Your task to perform on an android device: turn on bluetooth scan Image 0: 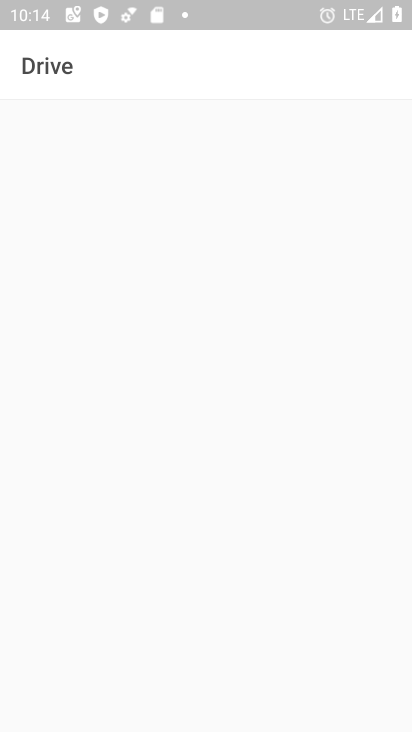
Step 0: press home button
Your task to perform on an android device: turn on bluetooth scan Image 1: 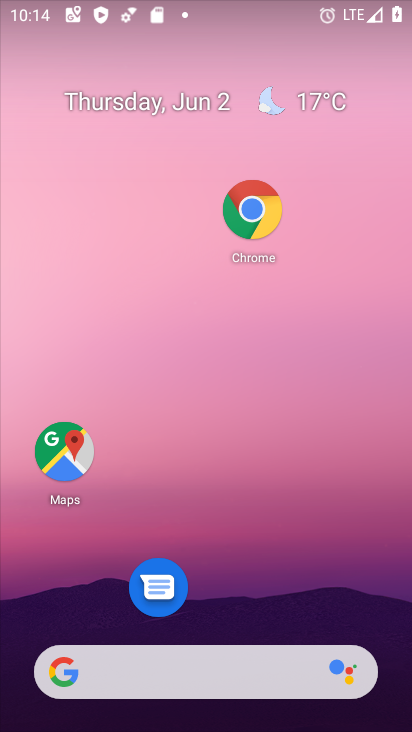
Step 1: drag from (210, 619) to (222, 40)
Your task to perform on an android device: turn on bluetooth scan Image 2: 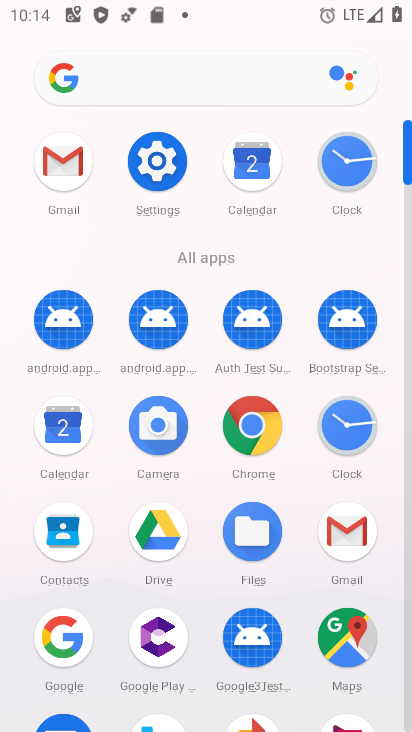
Step 2: click (155, 155)
Your task to perform on an android device: turn on bluetooth scan Image 3: 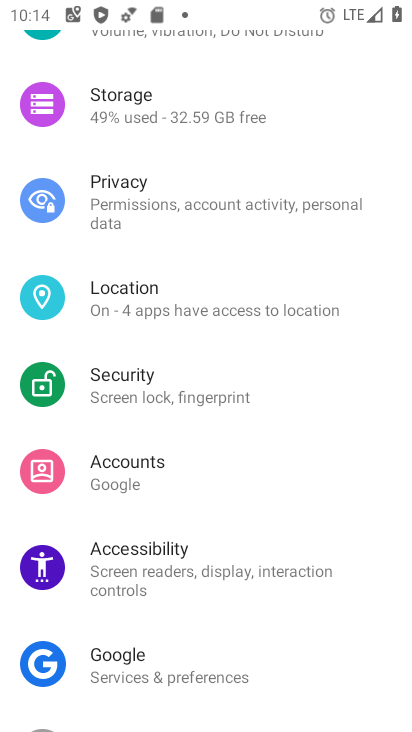
Step 3: click (169, 287)
Your task to perform on an android device: turn on bluetooth scan Image 4: 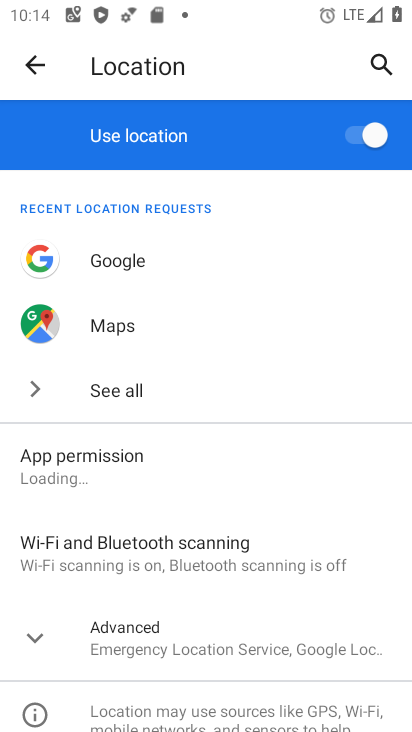
Step 4: click (209, 551)
Your task to perform on an android device: turn on bluetooth scan Image 5: 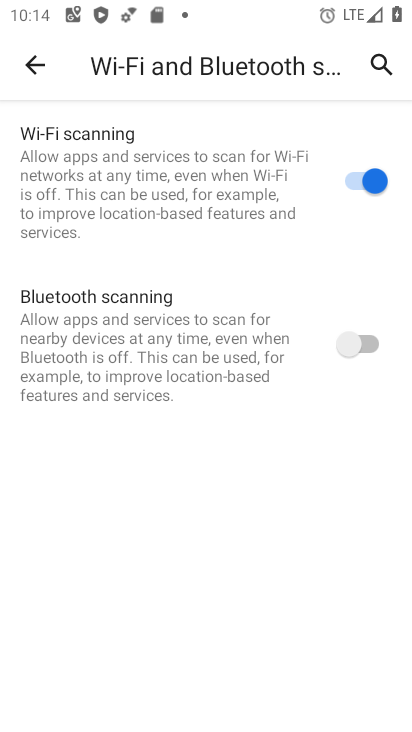
Step 5: click (367, 339)
Your task to perform on an android device: turn on bluetooth scan Image 6: 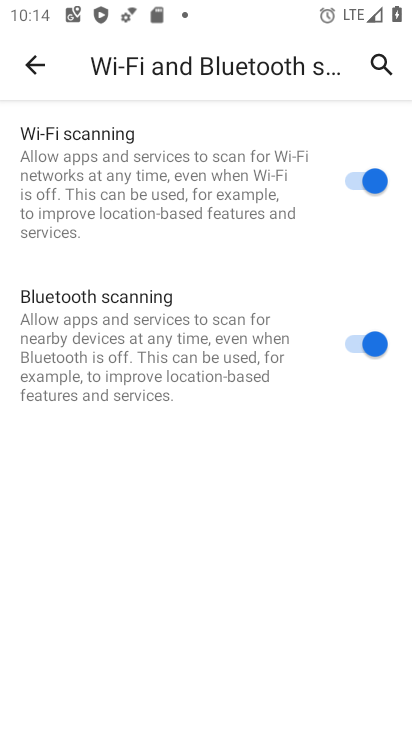
Step 6: task complete